Your task to perform on an android device: turn on location history Image 0: 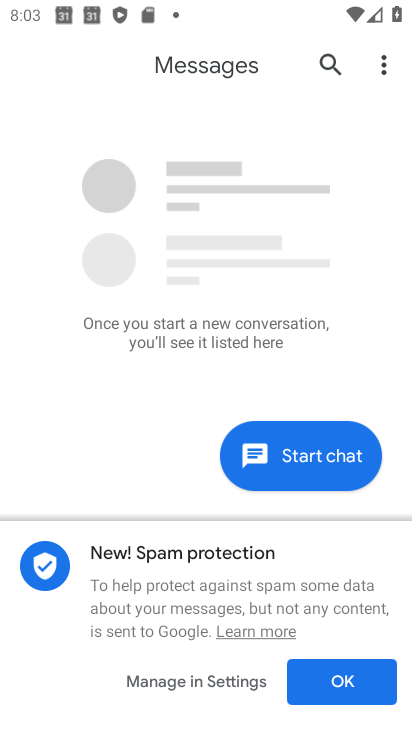
Step 0: press home button
Your task to perform on an android device: turn on location history Image 1: 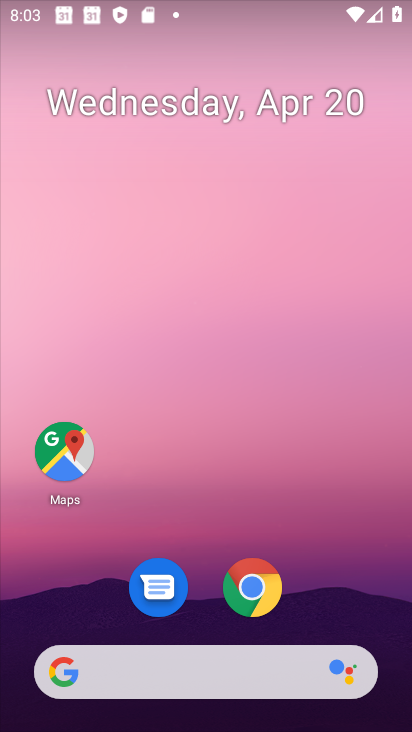
Step 1: drag from (336, 603) to (359, 223)
Your task to perform on an android device: turn on location history Image 2: 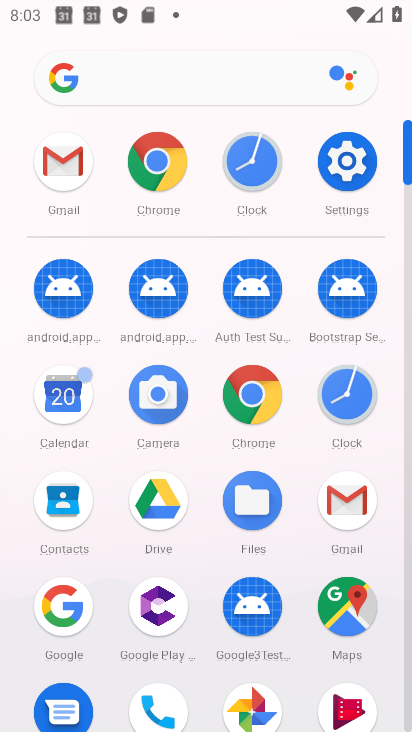
Step 2: click (350, 178)
Your task to perform on an android device: turn on location history Image 3: 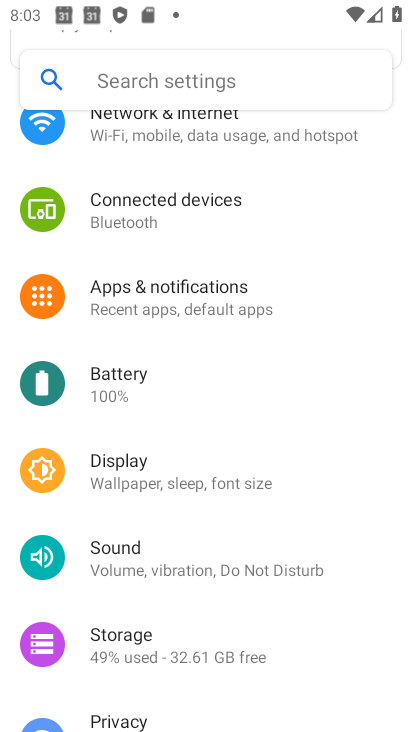
Step 3: drag from (361, 283) to (367, 420)
Your task to perform on an android device: turn on location history Image 4: 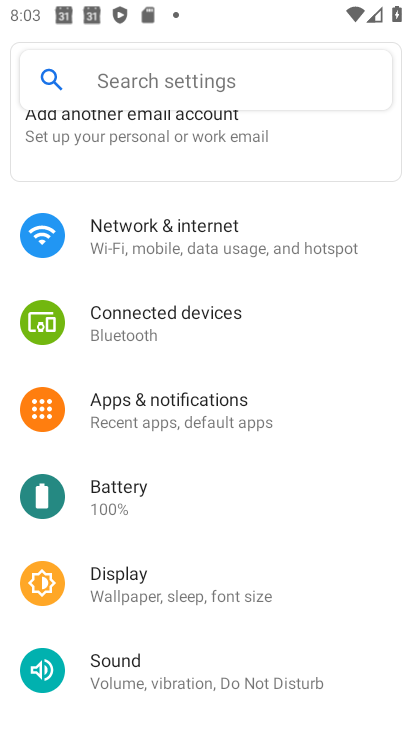
Step 4: drag from (370, 285) to (353, 450)
Your task to perform on an android device: turn on location history Image 5: 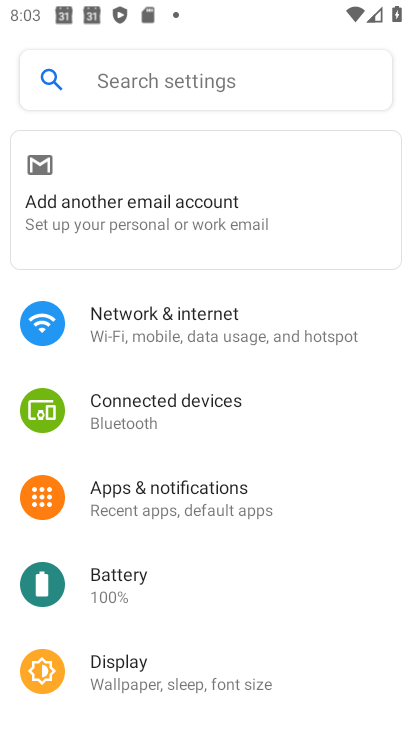
Step 5: drag from (378, 292) to (361, 466)
Your task to perform on an android device: turn on location history Image 6: 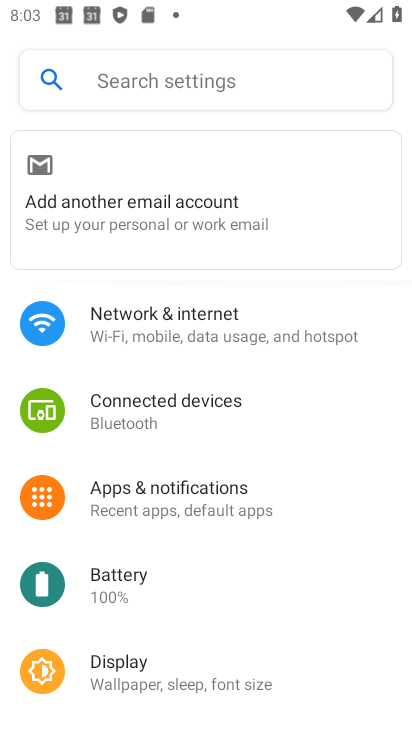
Step 6: drag from (362, 517) to (382, 354)
Your task to perform on an android device: turn on location history Image 7: 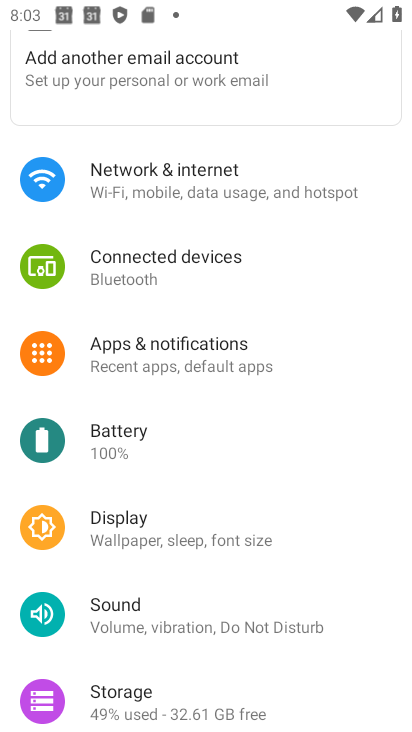
Step 7: drag from (382, 529) to (381, 381)
Your task to perform on an android device: turn on location history Image 8: 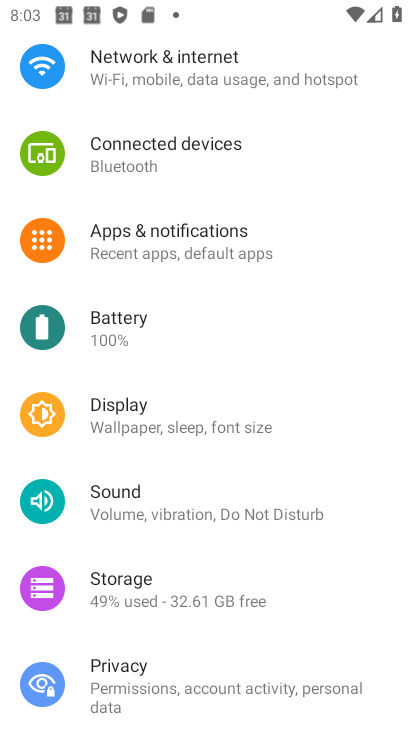
Step 8: drag from (363, 558) to (371, 397)
Your task to perform on an android device: turn on location history Image 9: 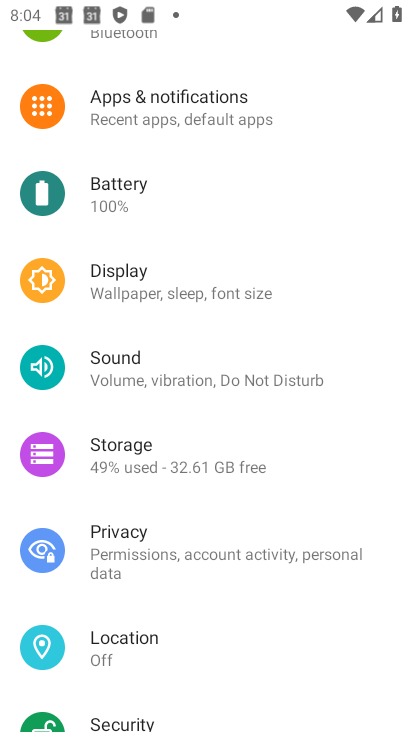
Step 9: drag from (359, 606) to (379, 453)
Your task to perform on an android device: turn on location history Image 10: 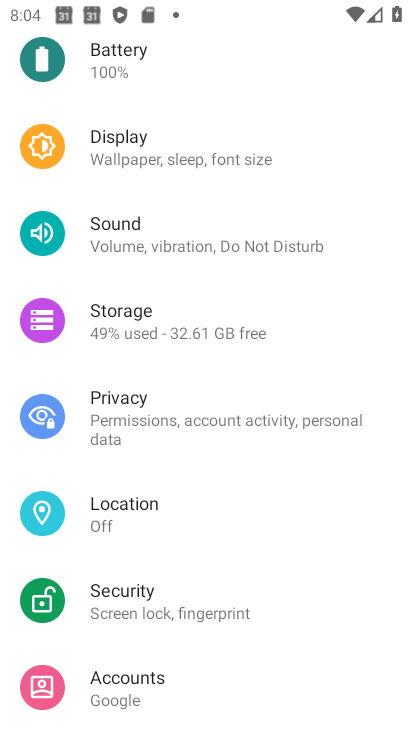
Step 10: drag from (363, 607) to (363, 457)
Your task to perform on an android device: turn on location history Image 11: 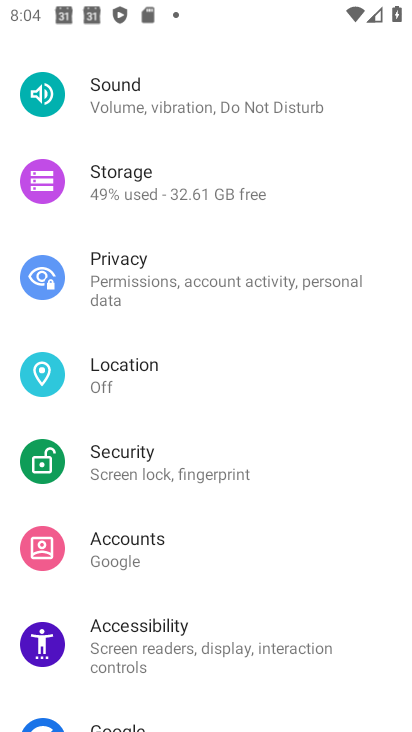
Step 11: click (157, 357)
Your task to perform on an android device: turn on location history Image 12: 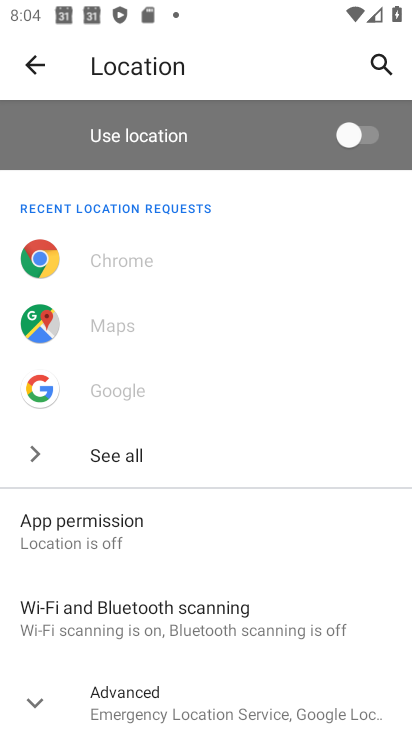
Step 12: drag from (343, 516) to (345, 334)
Your task to perform on an android device: turn on location history Image 13: 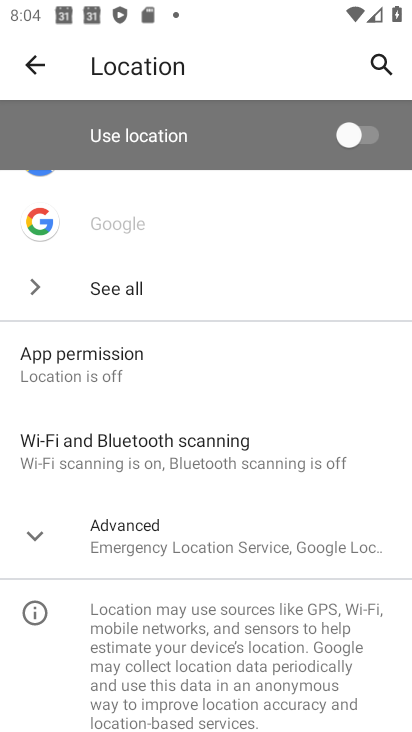
Step 13: click (303, 546)
Your task to perform on an android device: turn on location history Image 14: 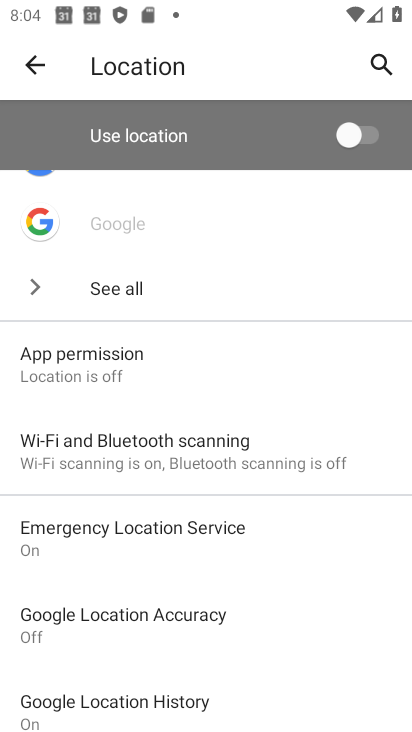
Step 14: drag from (322, 612) to (338, 424)
Your task to perform on an android device: turn on location history Image 15: 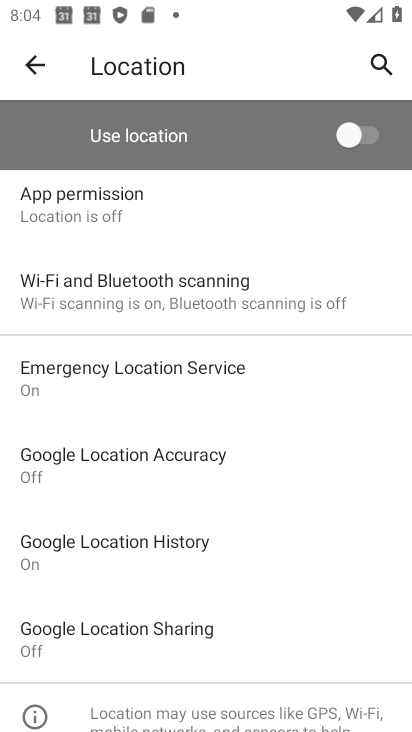
Step 15: drag from (325, 590) to (336, 426)
Your task to perform on an android device: turn on location history Image 16: 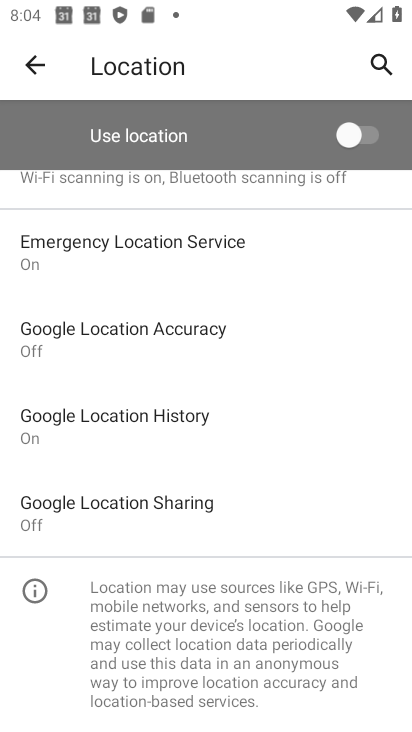
Step 16: click (190, 420)
Your task to perform on an android device: turn on location history Image 17: 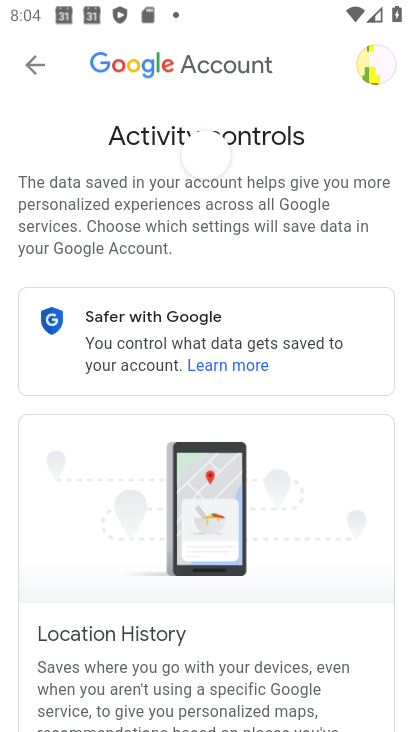
Step 17: task complete